Your task to perform on an android device: Go to battery settings Image 0: 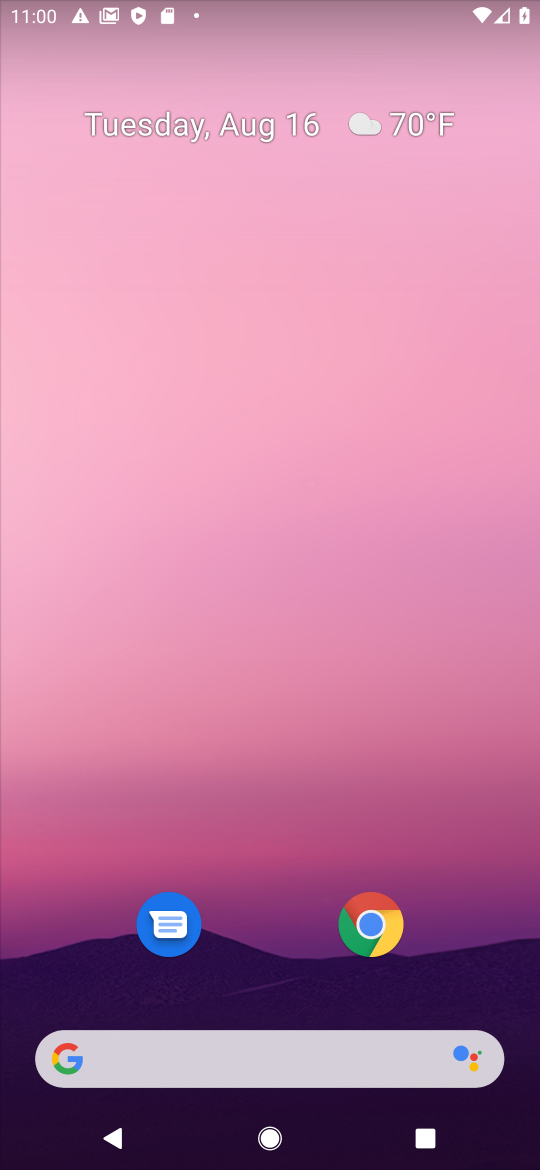
Step 0: drag from (209, 16) to (228, 786)
Your task to perform on an android device: Go to battery settings Image 1: 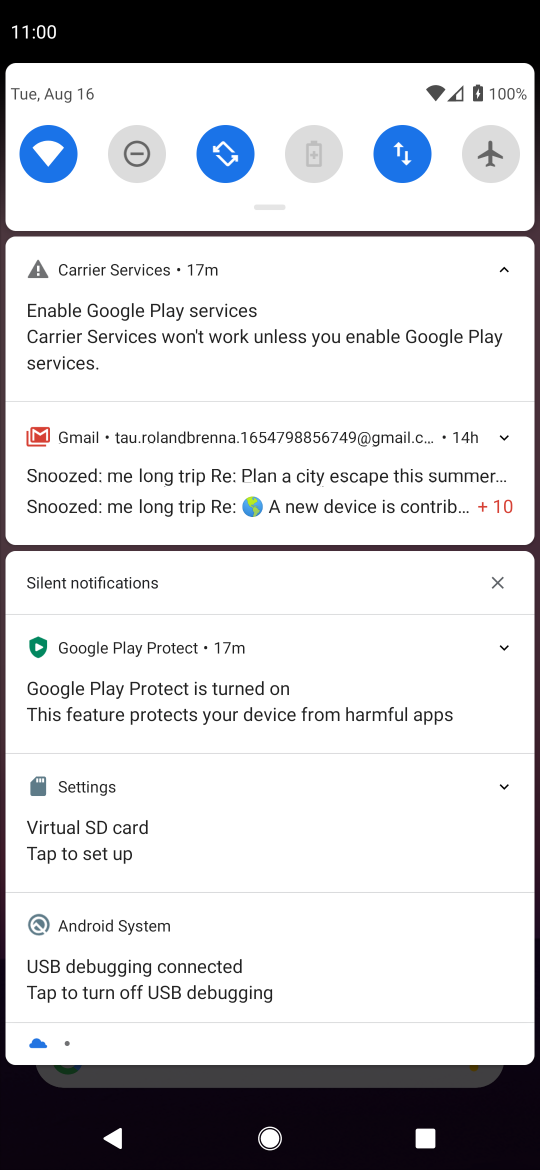
Step 1: click (300, 160)
Your task to perform on an android device: Go to battery settings Image 2: 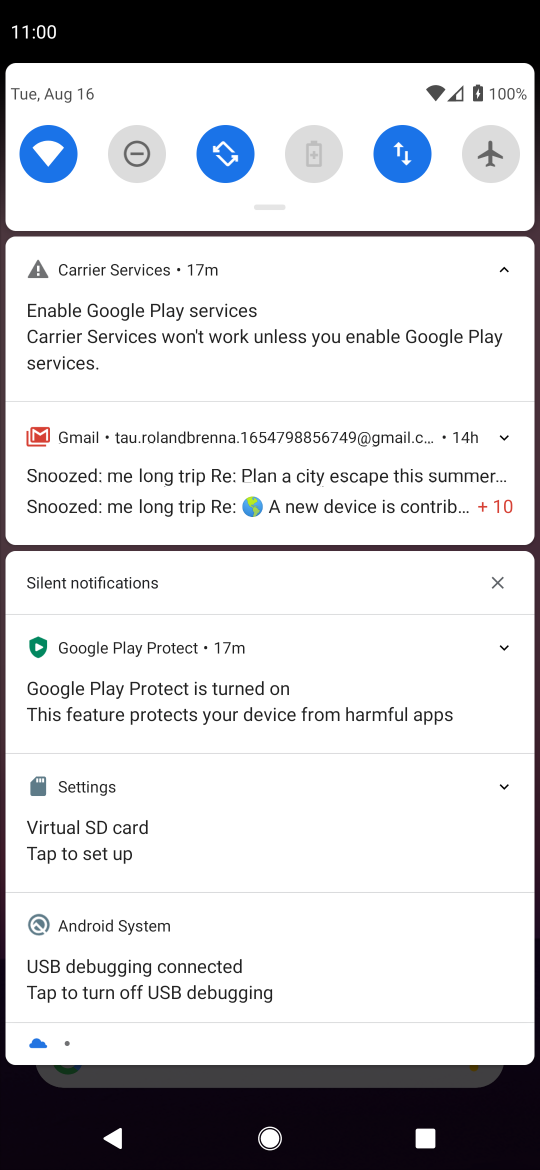
Step 2: click (300, 160)
Your task to perform on an android device: Go to battery settings Image 3: 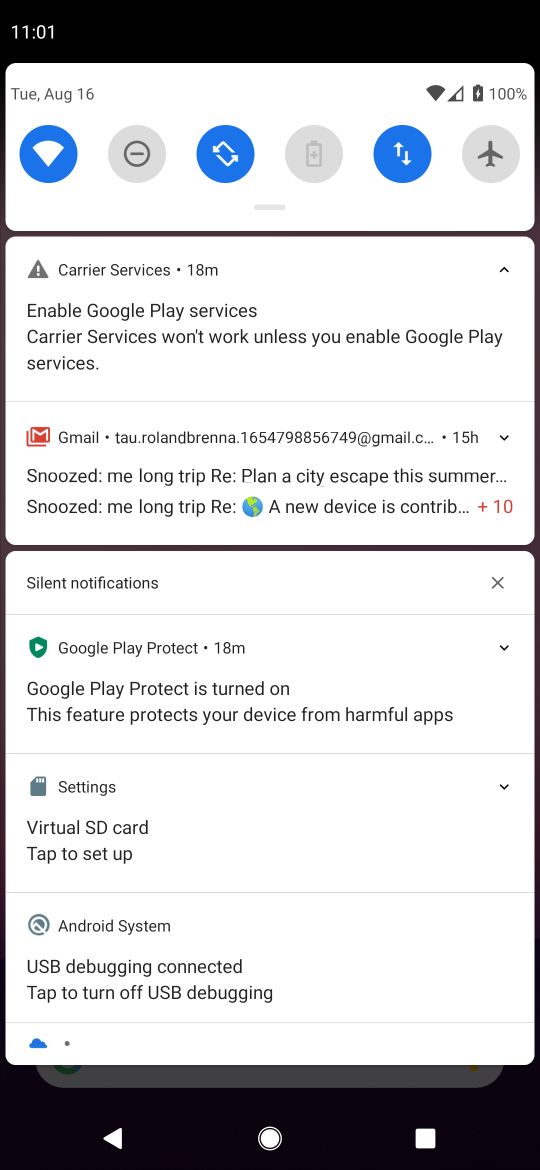
Step 3: click (300, 160)
Your task to perform on an android device: Go to battery settings Image 4: 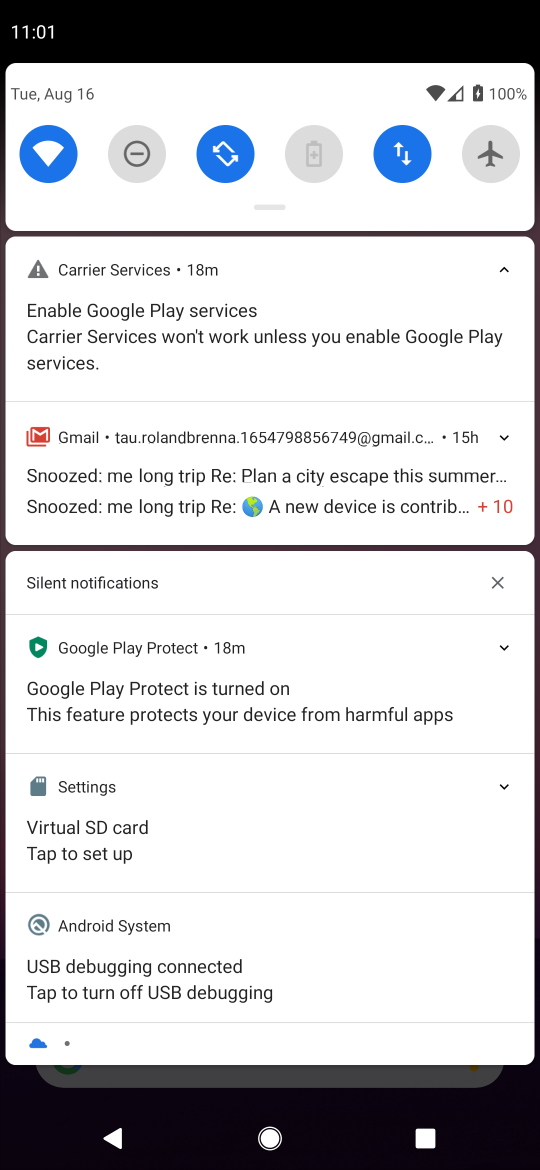
Step 4: click (300, 160)
Your task to perform on an android device: Go to battery settings Image 5: 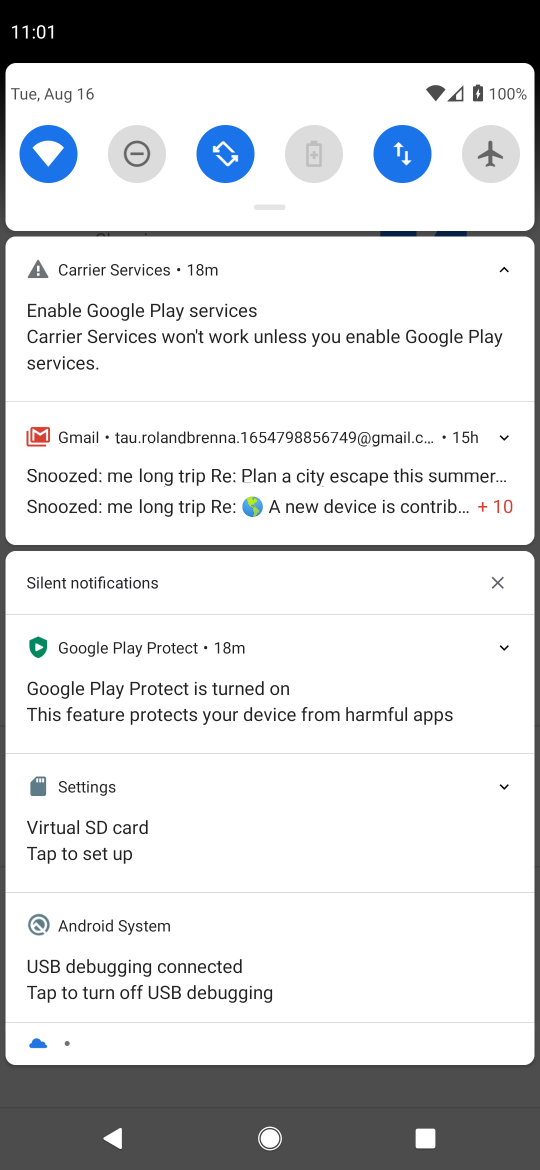
Step 5: click (336, 1089)
Your task to perform on an android device: Go to battery settings Image 6: 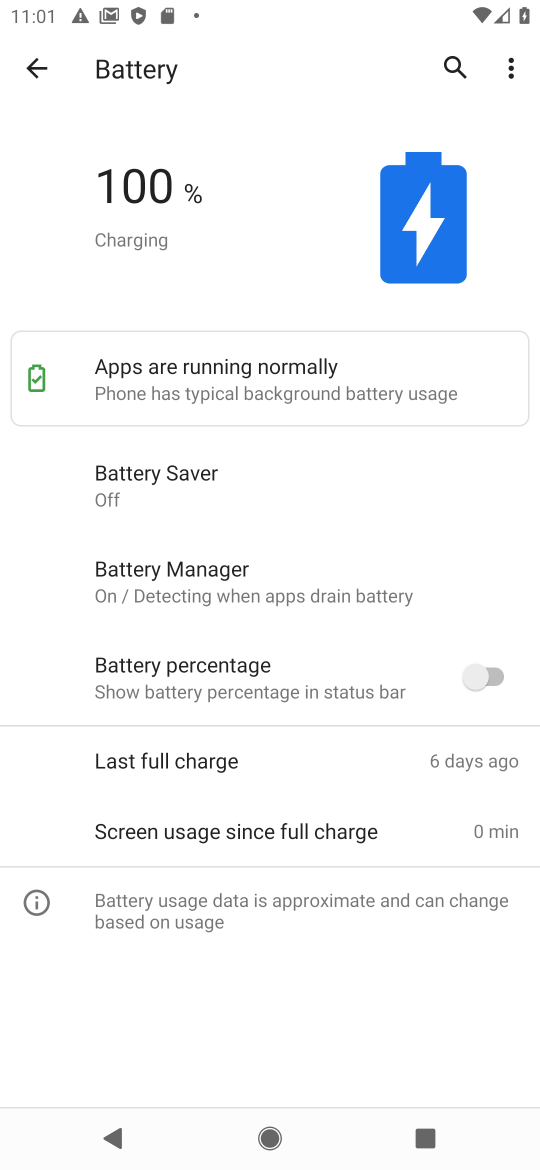
Step 6: task complete